Your task to perform on an android device: Add "logitech g903" to the cart on bestbuy, then select checkout. Image 0: 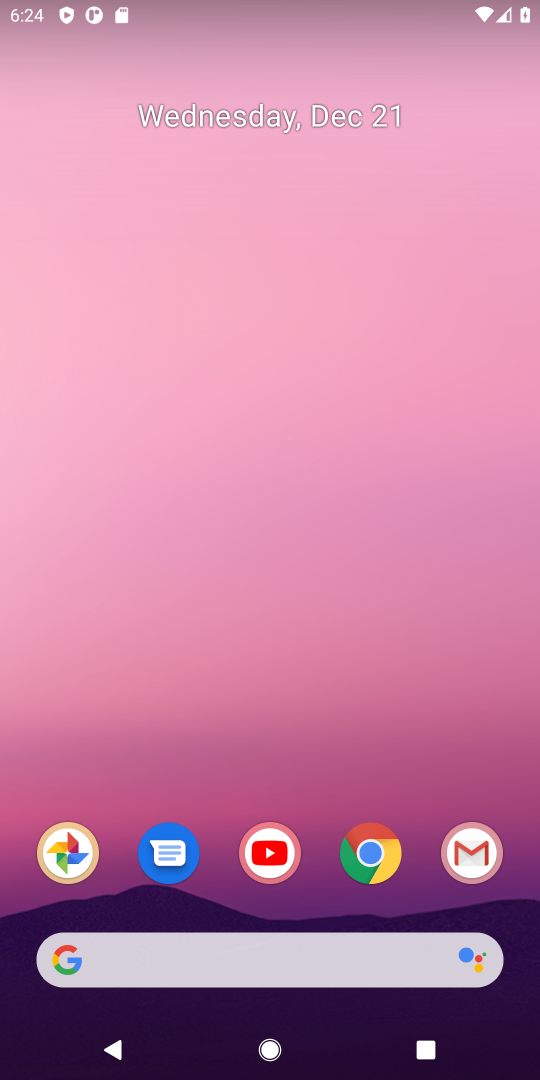
Step 0: click (372, 853)
Your task to perform on an android device: Add "logitech g903" to the cart on bestbuy, then select checkout. Image 1: 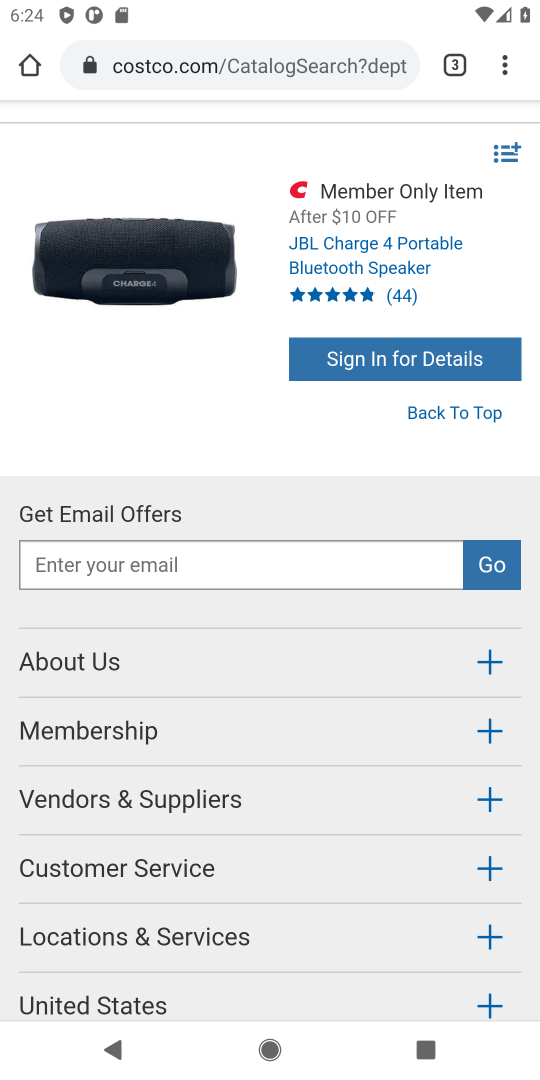
Step 1: click (460, 65)
Your task to perform on an android device: Add "logitech g903" to the cart on bestbuy, then select checkout. Image 2: 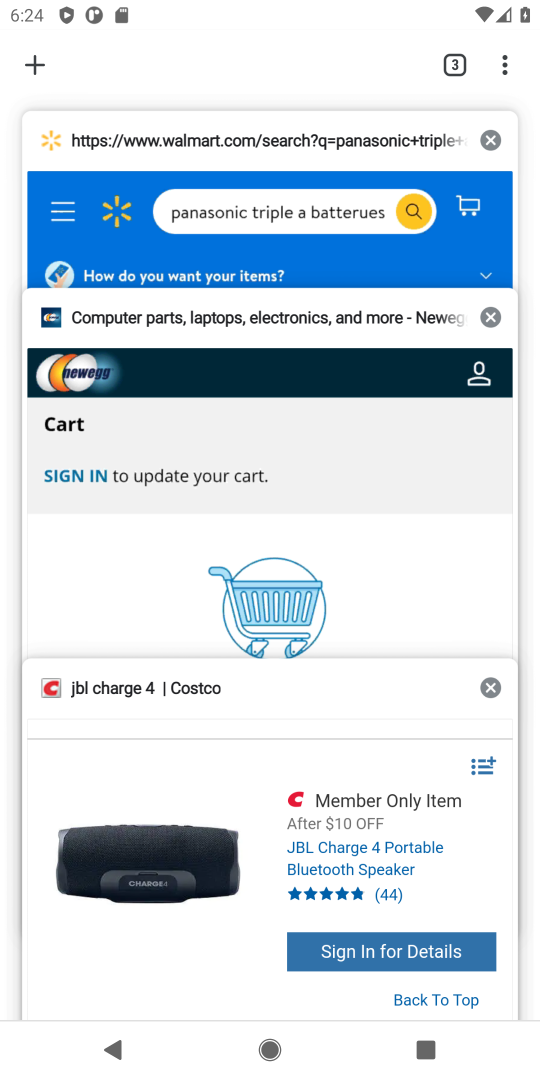
Step 2: click (25, 63)
Your task to perform on an android device: Add "logitech g903" to the cart on bestbuy, then select checkout. Image 3: 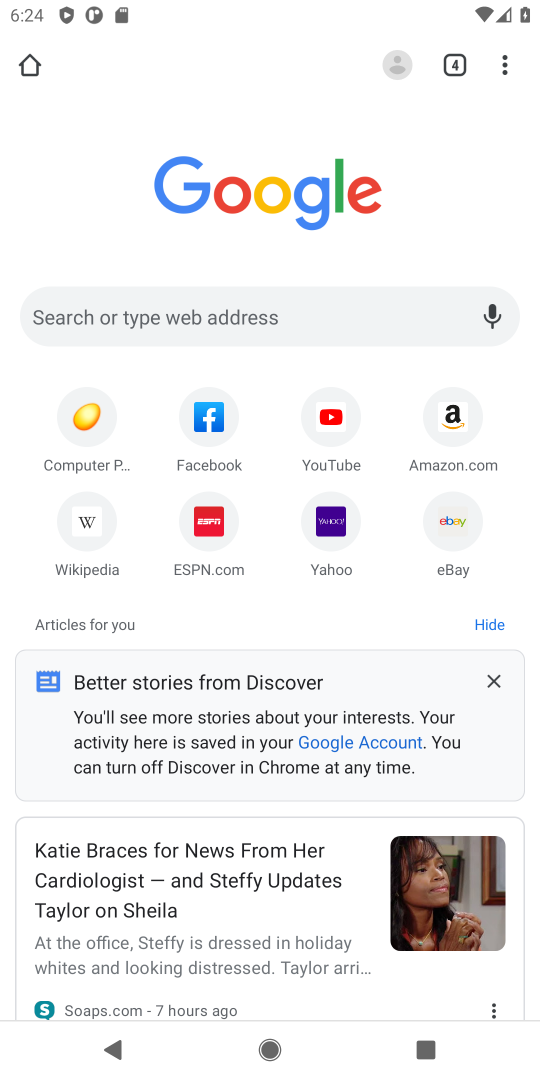
Step 3: click (263, 307)
Your task to perform on an android device: Add "logitech g903" to the cart on bestbuy, then select checkout. Image 4: 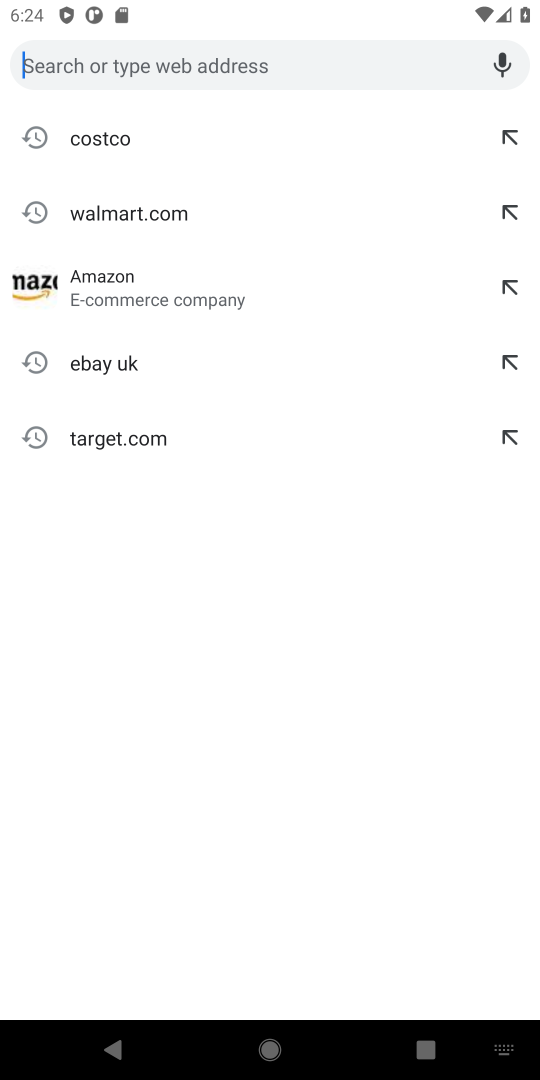
Step 4: type "bestbuy"
Your task to perform on an android device: Add "logitech g903" to the cart on bestbuy, then select checkout. Image 5: 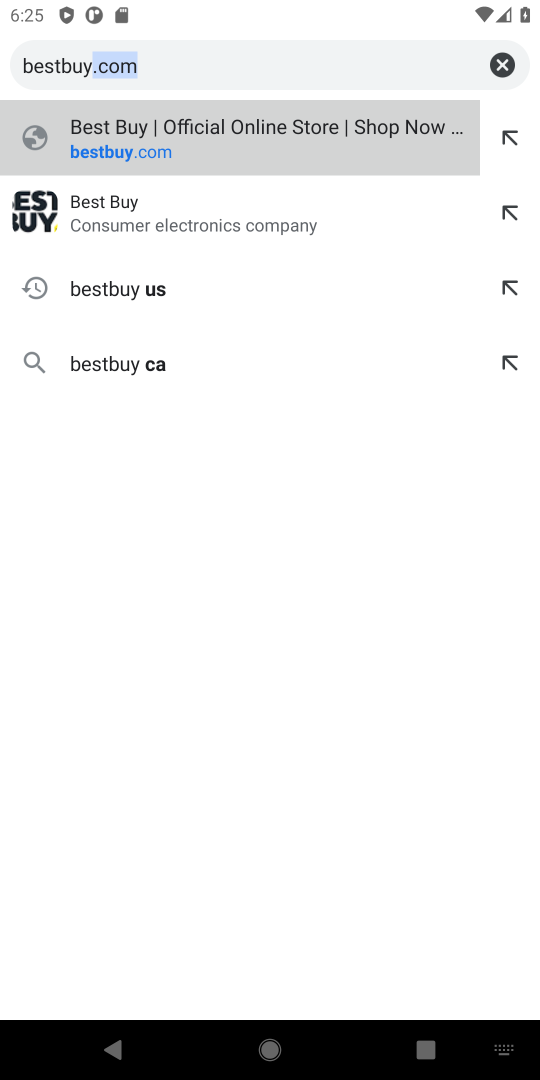
Step 5: click (294, 152)
Your task to perform on an android device: Add "logitech g903" to the cart on bestbuy, then select checkout. Image 6: 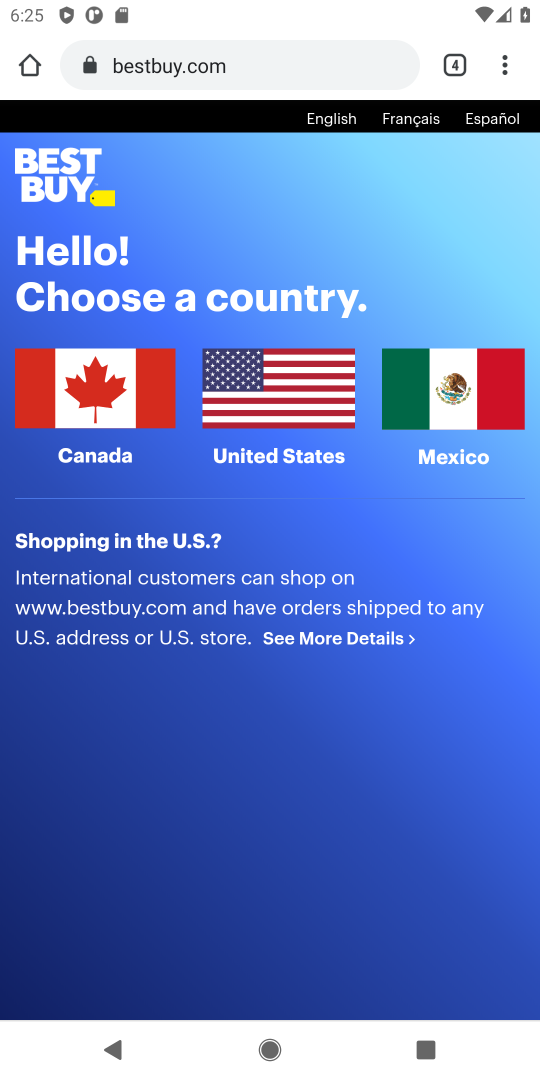
Step 6: click (286, 380)
Your task to perform on an android device: Add "logitech g903" to the cart on bestbuy, then select checkout. Image 7: 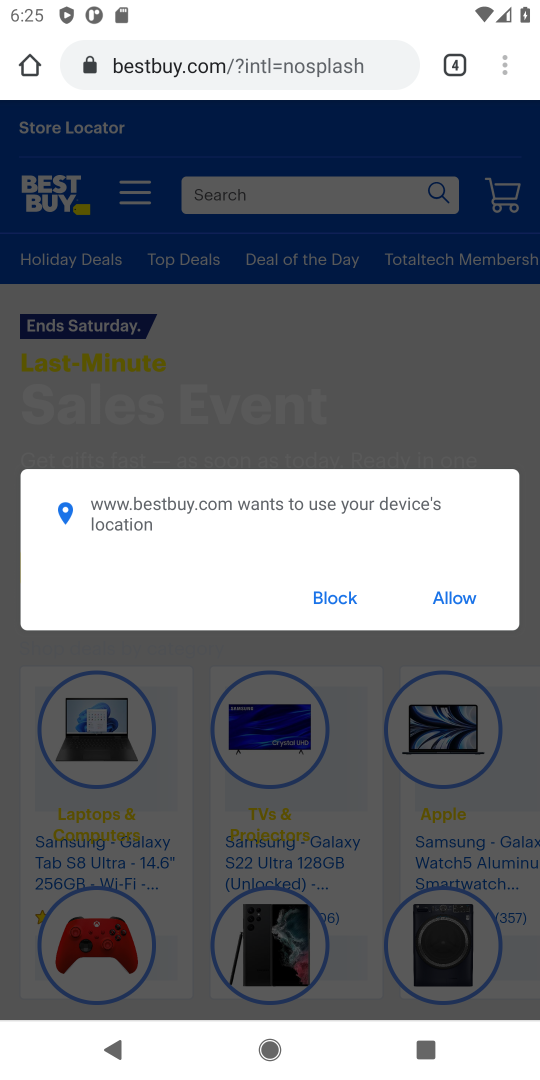
Step 7: click (333, 603)
Your task to perform on an android device: Add "logitech g903" to the cart on bestbuy, then select checkout. Image 8: 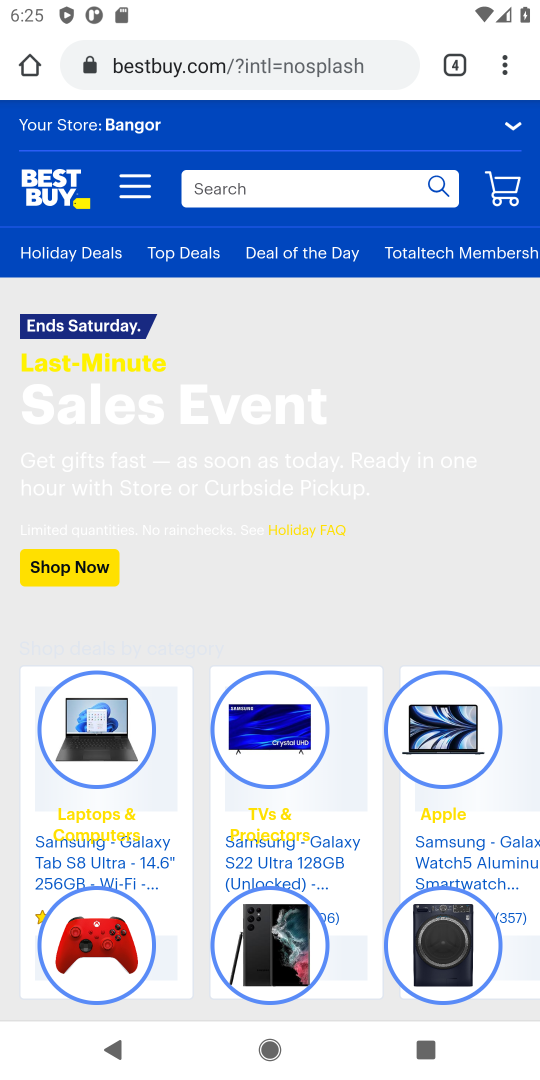
Step 8: click (286, 186)
Your task to perform on an android device: Add "logitech g903" to the cart on bestbuy, then select checkout. Image 9: 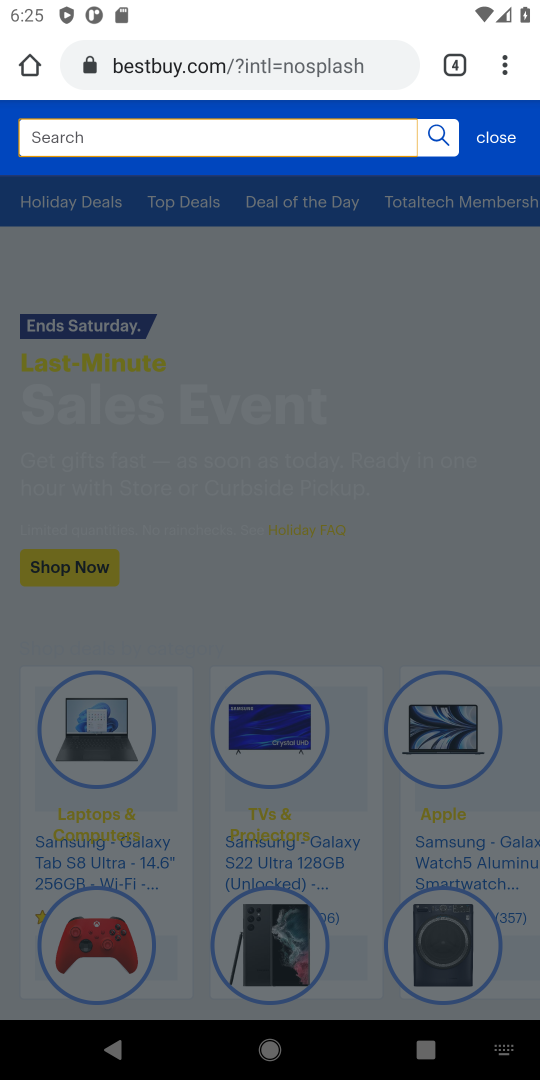
Step 9: type "logitech g903"
Your task to perform on an android device: Add "logitech g903" to the cart on bestbuy, then select checkout. Image 10: 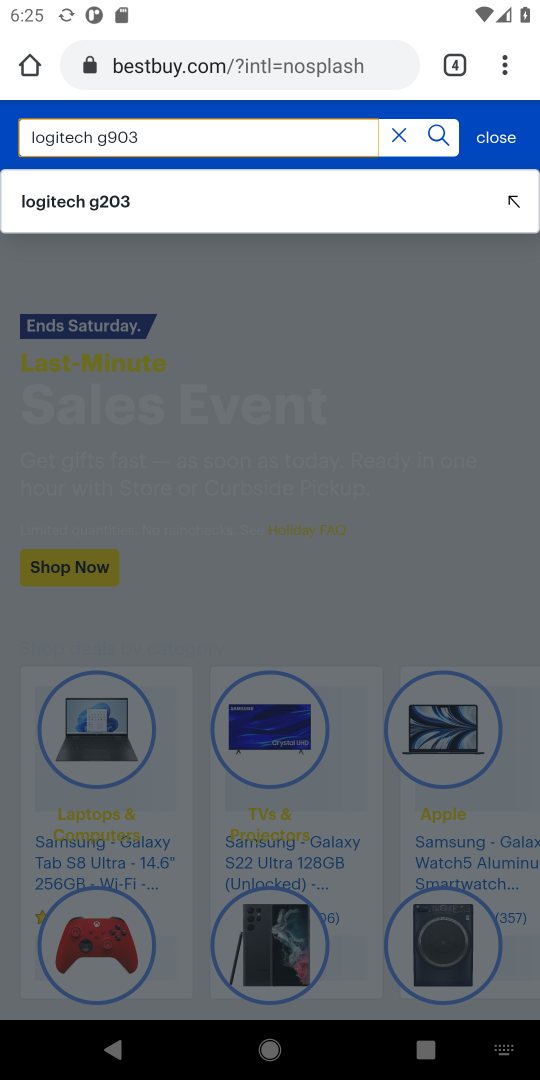
Step 10: click (448, 132)
Your task to perform on an android device: Add "logitech g903" to the cart on bestbuy, then select checkout. Image 11: 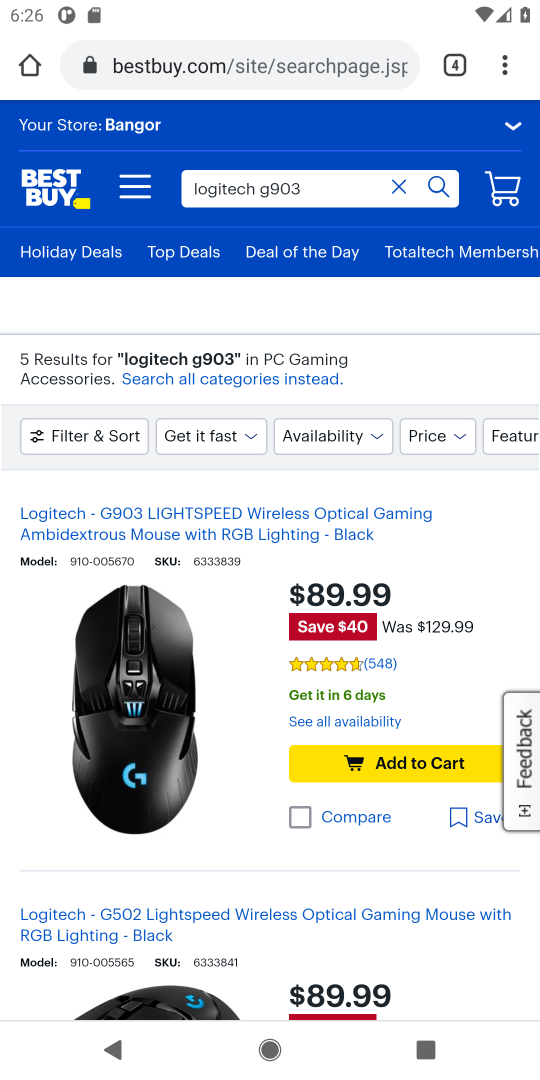
Step 11: click (421, 762)
Your task to perform on an android device: Add "logitech g903" to the cart on bestbuy, then select checkout. Image 12: 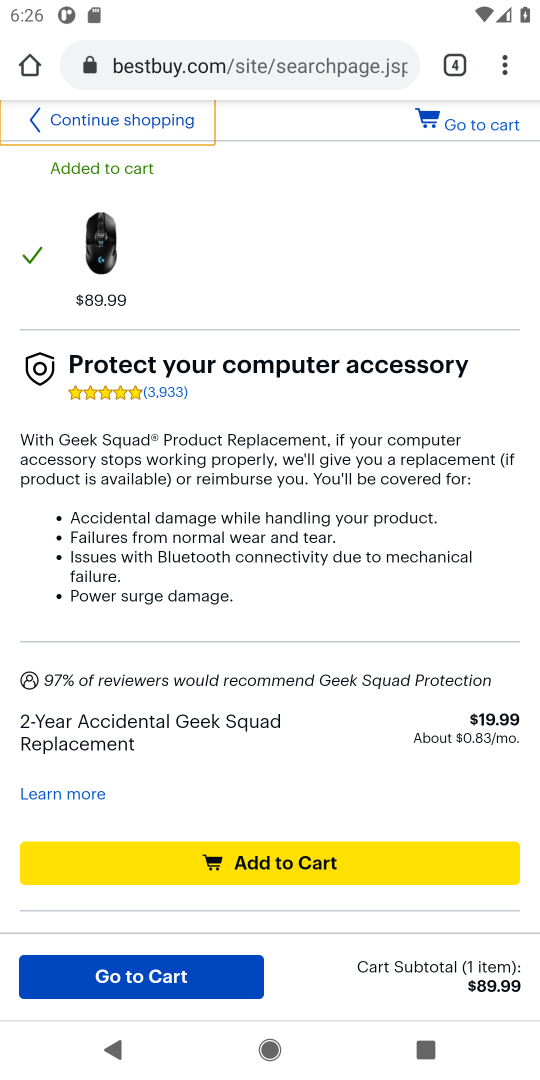
Step 12: task complete